Your task to perform on an android device: Open the calendar and show me this week's events? Image 0: 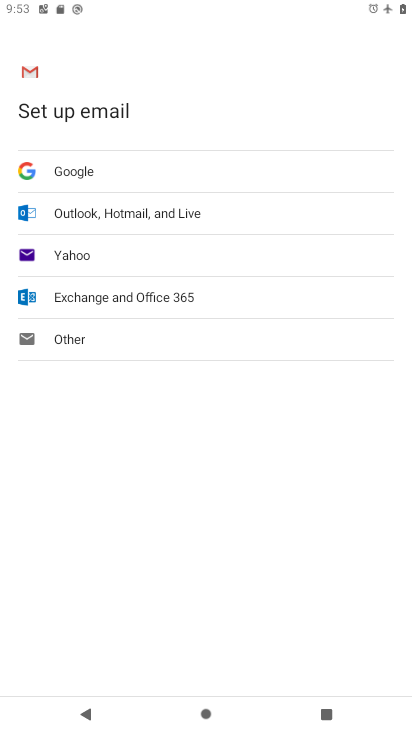
Step 0: press home button
Your task to perform on an android device: Open the calendar and show me this week's events? Image 1: 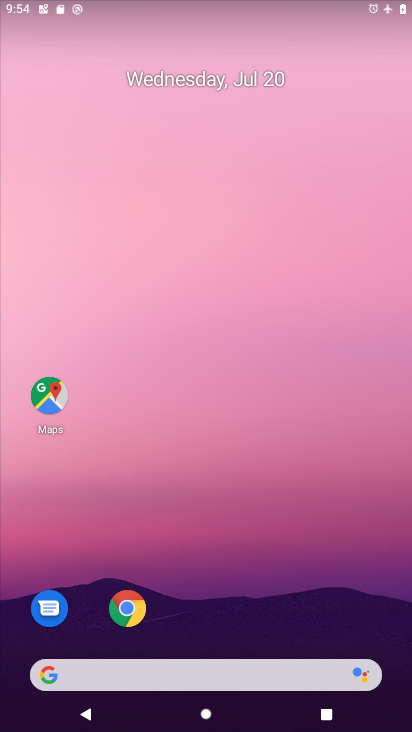
Step 1: drag from (264, 652) to (250, 13)
Your task to perform on an android device: Open the calendar and show me this week's events? Image 2: 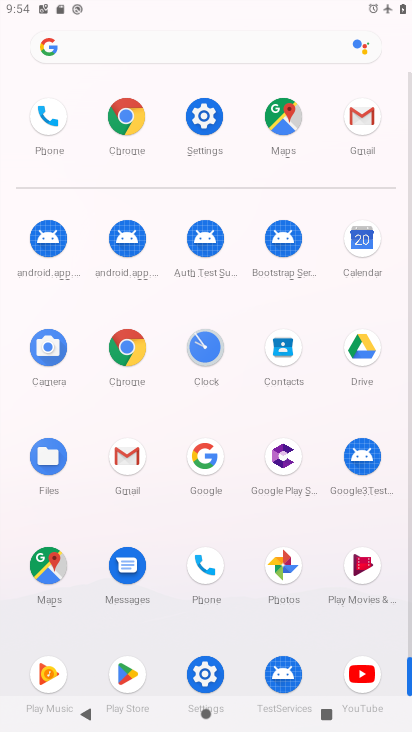
Step 2: click (361, 224)
Your task to perform on an android device: Open the calendar and show me this week's events? Image 3: 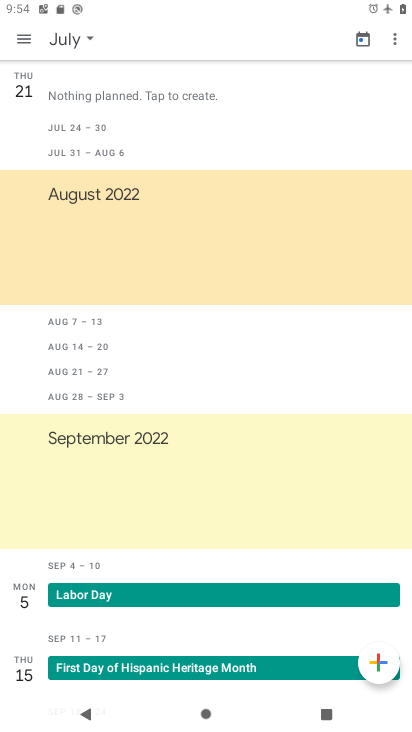
Step 3: click (12, 36)
Your task to perform on an android device: Open the calendar and show me this week's events? Image 4: 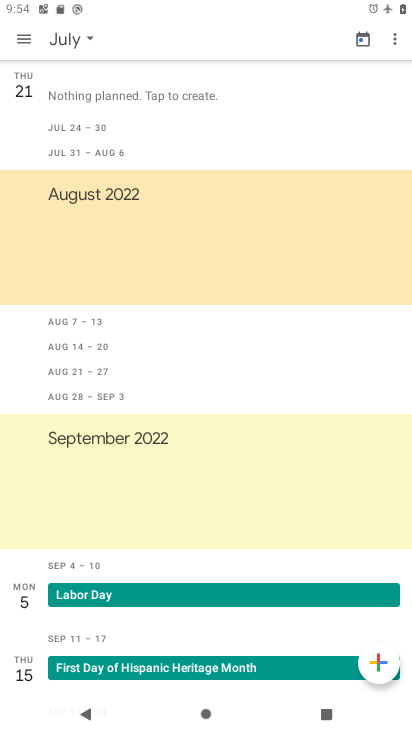
Step 4: click (23, 38)
Your task to perform on an android device: Open the calendar and show me this week's events? Image 5: 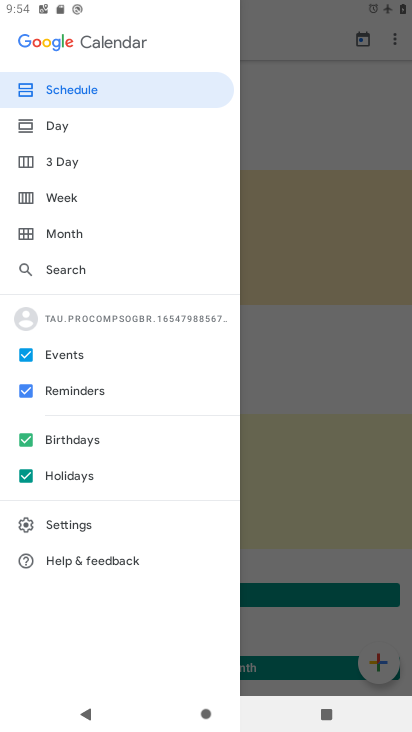
Step 5: click (82, 202)
Your task to perform on an android device: Open the calendar and show me this week's events? Image 6: 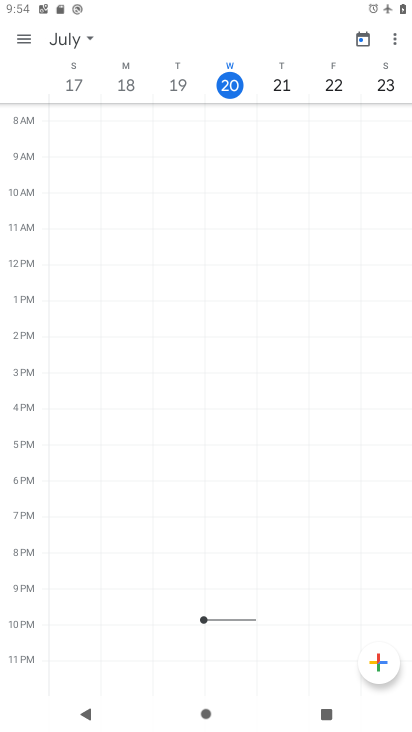
Step 6: task complete